Your task to perform on an android device: Search for Mexican restaurants on Maps Image 0: 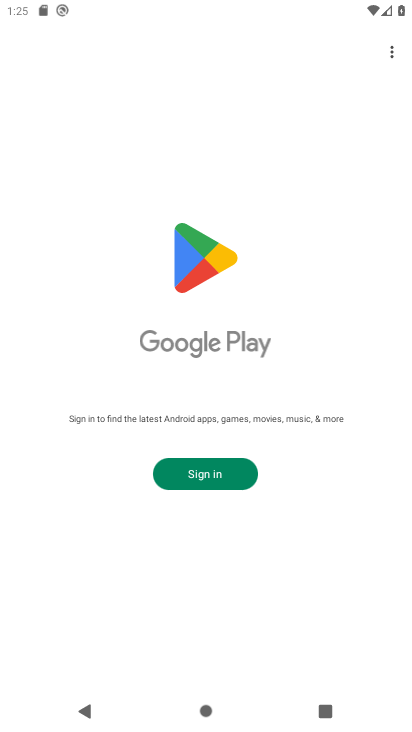
Step 0: press home button
Your task to perform on an android device: Search for Mexican restaurants on Maps Image 1: 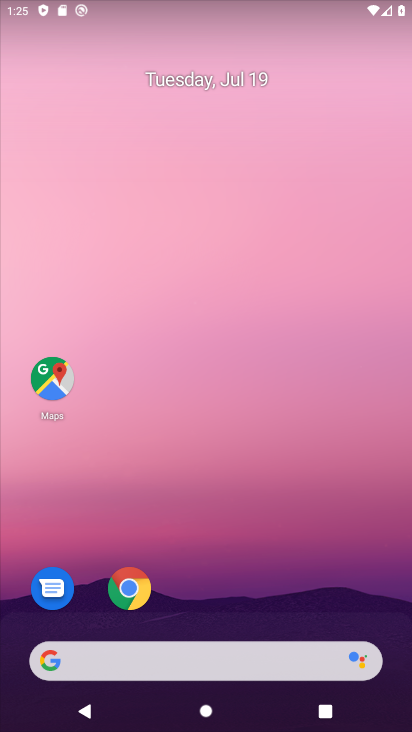
Step 1: click (43, 377)
Your task to perform on an android device: Search for Mexican restaurants on Maps Image 2: 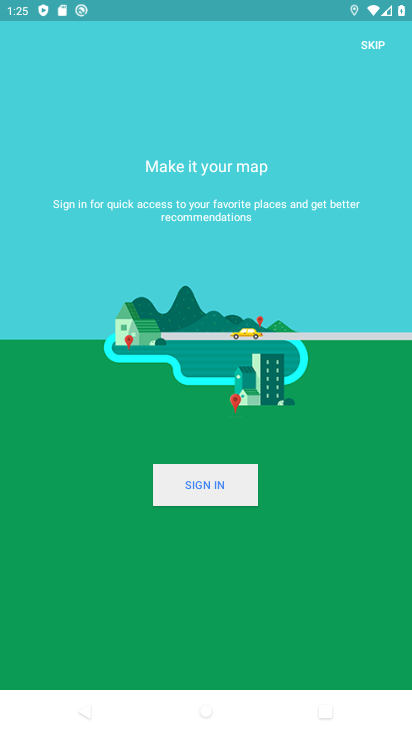
Step 2: click (218, 496)
Your task to perform on an android device: Search for Mexican restaurants on Maps Image 3: 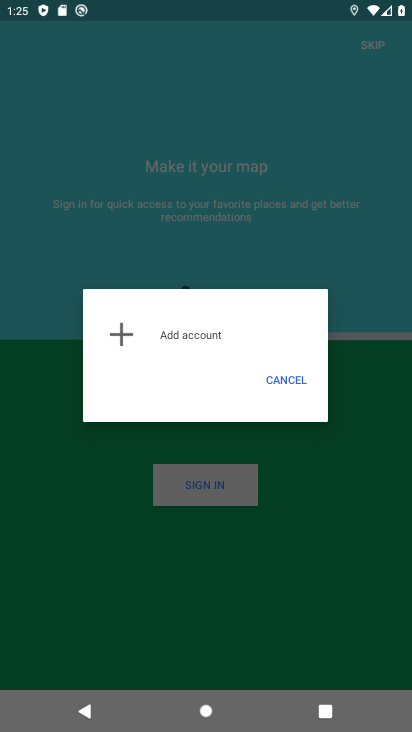
Step 3: click (373, 39)
Your task to perform on an android device: Search for Mexican restaurants on Maps Image 4: 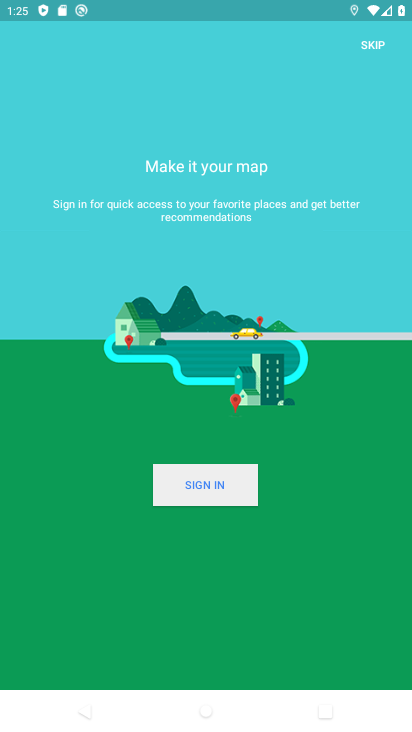
Step 4: click (366, 43)
Your task to perform on an android device: Search for Mexican restaurants on Maps Image 5: 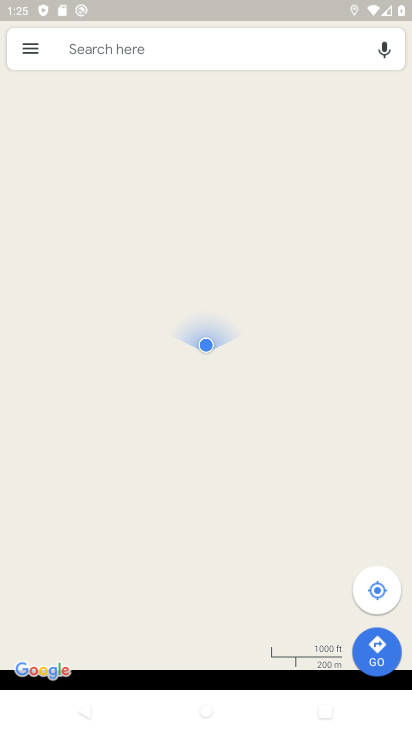
Step 5: click (219, 46)
Your task to perform on an android device: Search for Mexican restaurants on Maps Image 6: 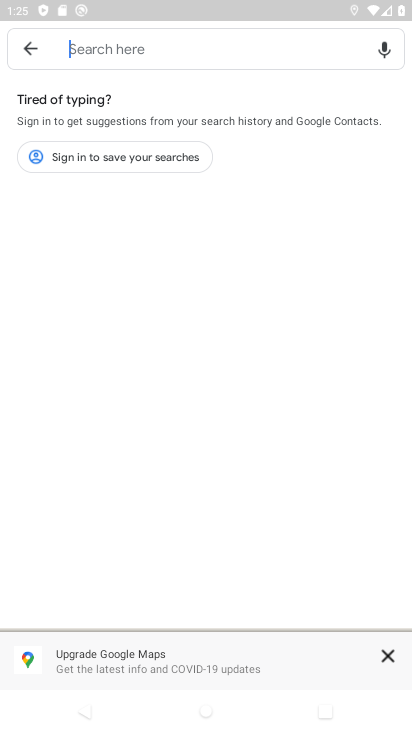
Step 6: click (97, 48)
Your task to perform on an android device: Search for Mexican restaurants on Maps Image 7: 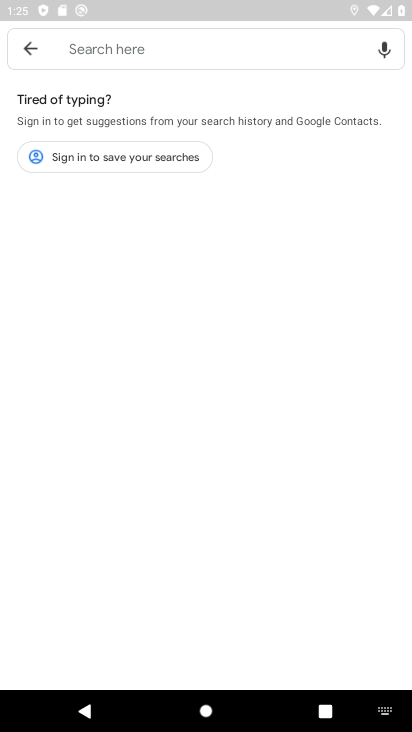
Step 7: type "Mexican restaurants"
Your task to perform on an android device: Search for Mexican restaurants on Maps Image 8: 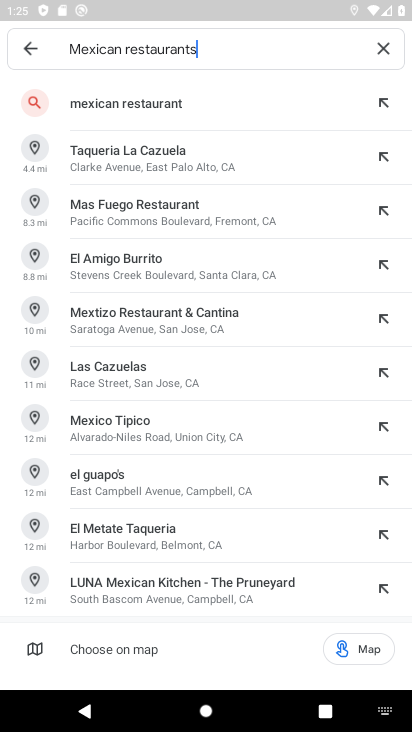
Step 8: click (150, 106)
Your task to perform on an android device: Search for Mexican restaurants on Maps Image 9: 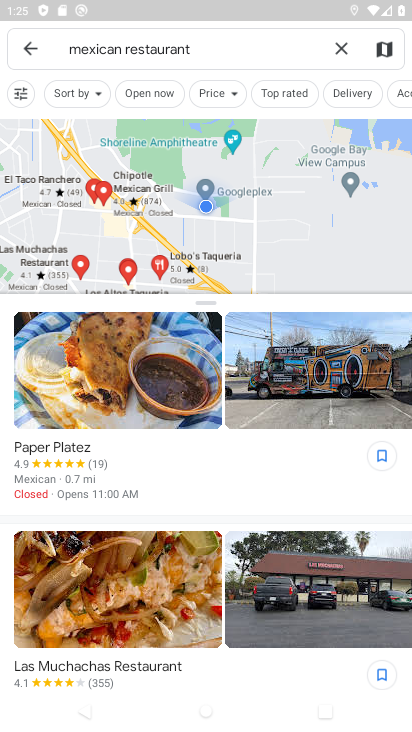
Step 9: task complete